Your task to perform on an android device: Open ESPN.com Image 0: 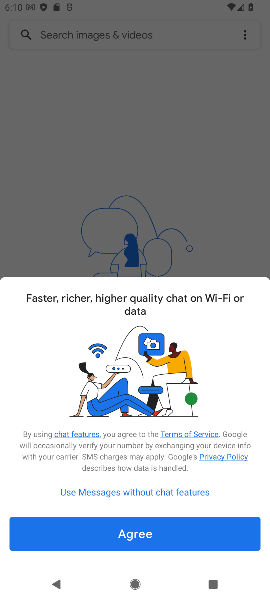
Step 0: press home button
Your task to perform on an android device: Open ESPN.com Image 1: 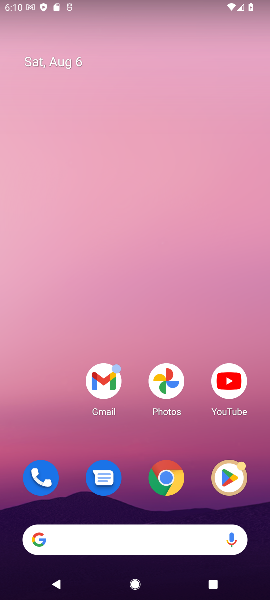
Step 1: click (175, 483)
Your task to perform on an android device: Open ESPN.com Image 2: 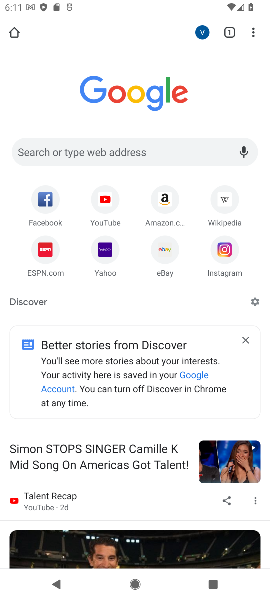
Step 2: click (44, 259)
Your task to perform on an android device: Open ESPN.com Image 3: 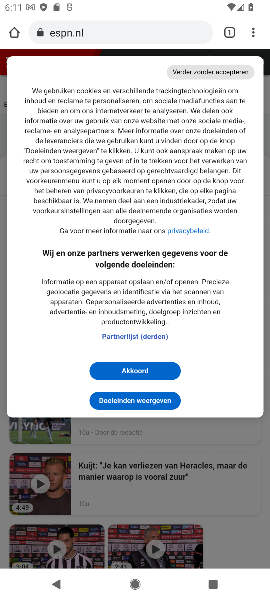
Step 3: task complete